Your task to perform on an android device: Go to CNN.com Image 0: 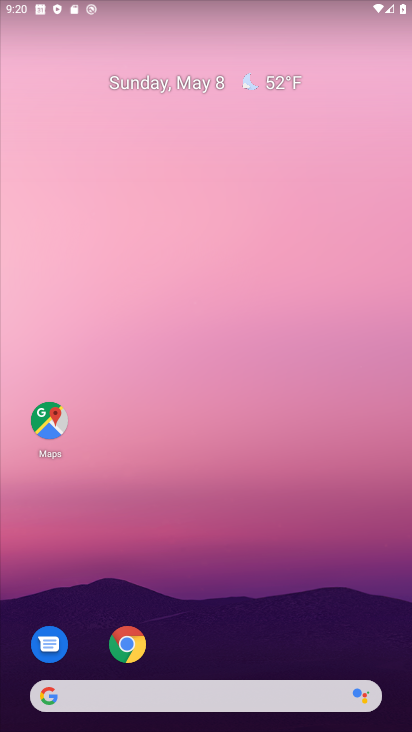
Step 0: drag from (177, 681) to (207, 12)
Your task to perform on an android device: Go to CNN.com Image 1: 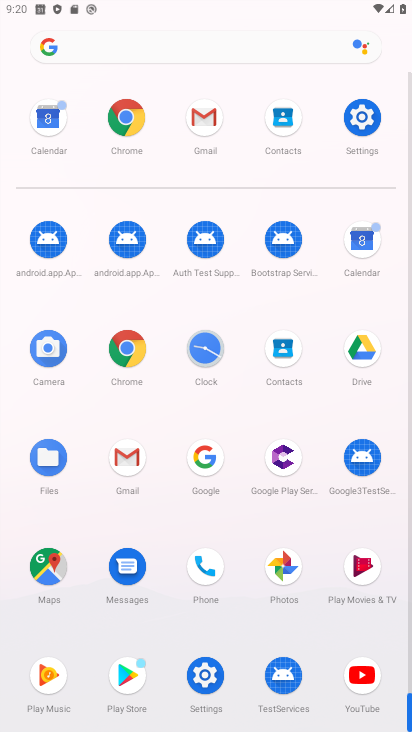
Step 1: click (129, 342)
Your task to perform on an android device: Go to CNN.com Image 2: 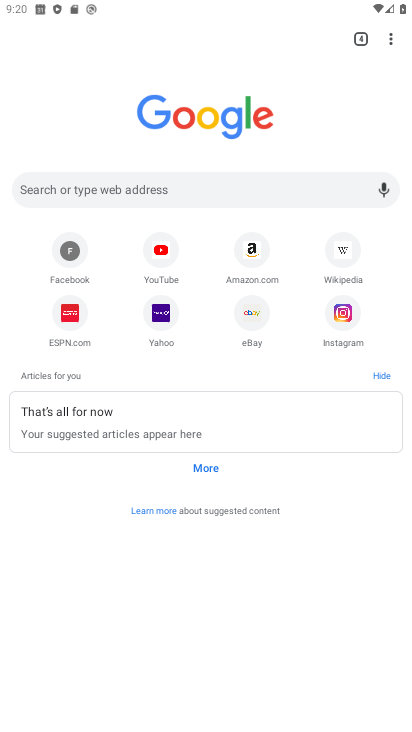
Step 2: click (161, 188)
Your task to perform on an android device: Go to CNN.com Image 3: 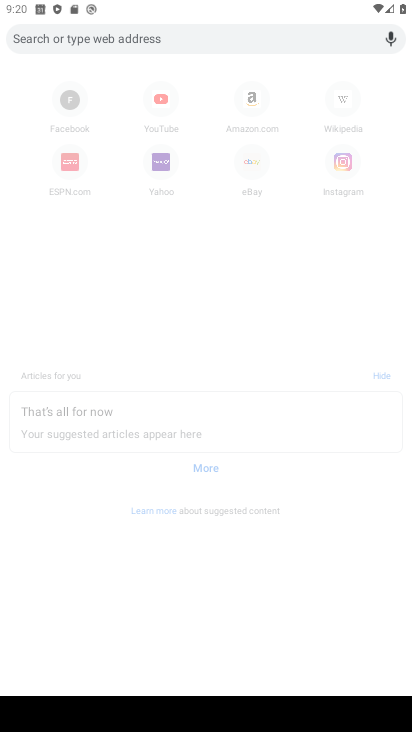
Step 3: type "cnn"
Your task to perform on an android device: Go to CNN.com Image 4: 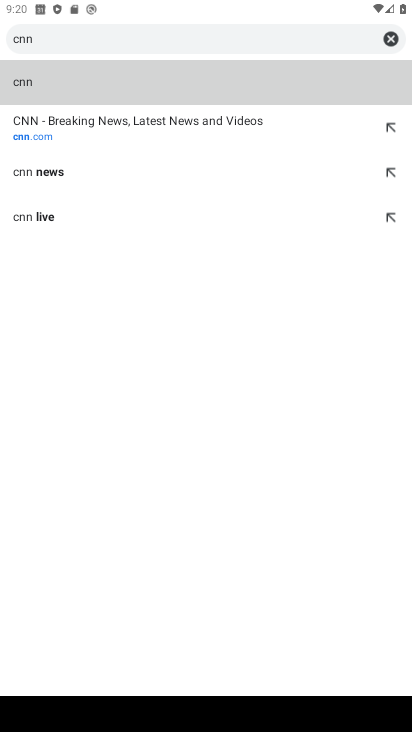
Step 4: click (52, 131)
Your task to perform on an android device: Go to CNN.com Image 5: 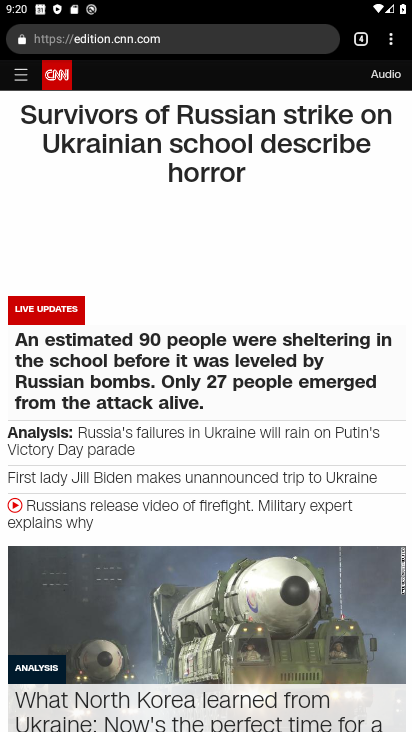
Step 5: task complete